Your task to perform on an android device: Open battery settings Image 0: 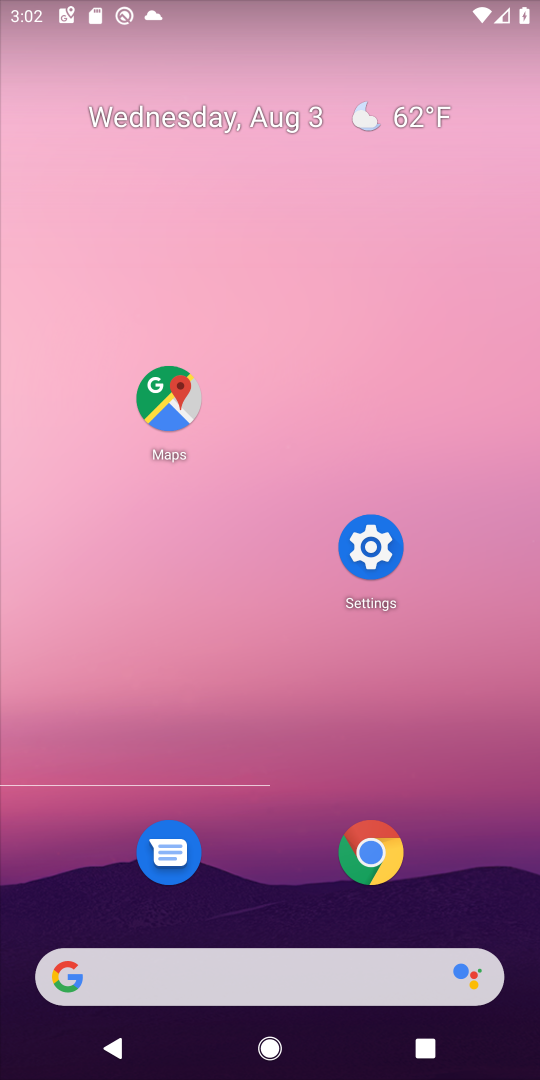
Step 0: click (368, 546)
Your task to perform on an android device: Open battery settings Image 1: 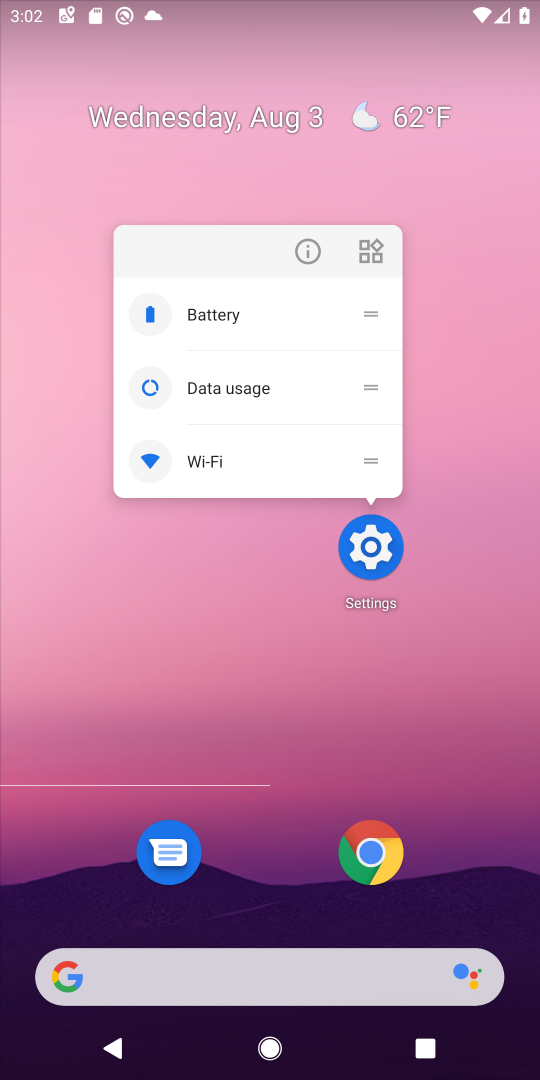
Step 1: click (368, 547)
Your task to perform on an android device: Open battery settings Image 2: 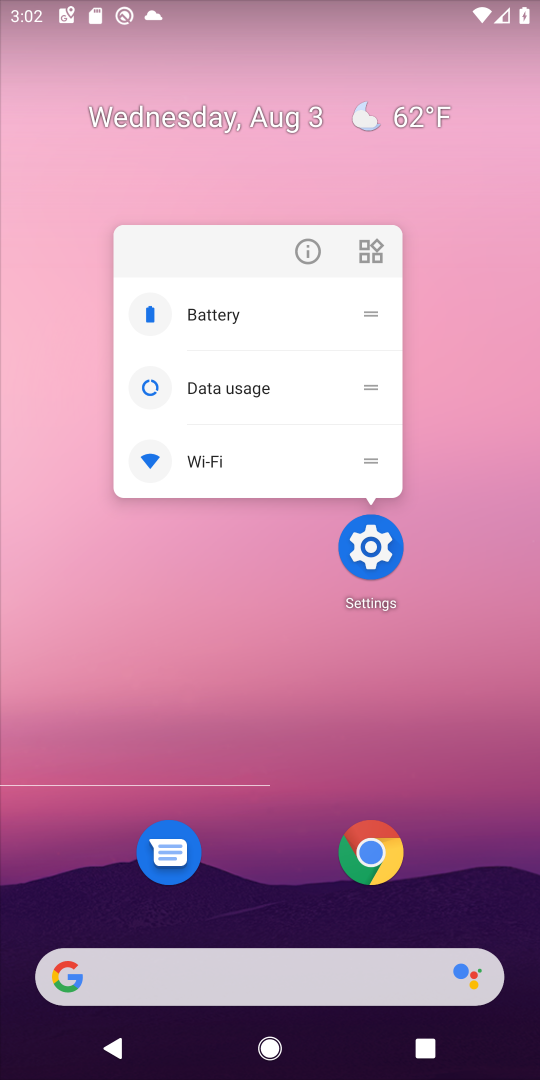
Step 2: click (368, 548)
Your task to perform on an android device: Open battery settings Image 3: 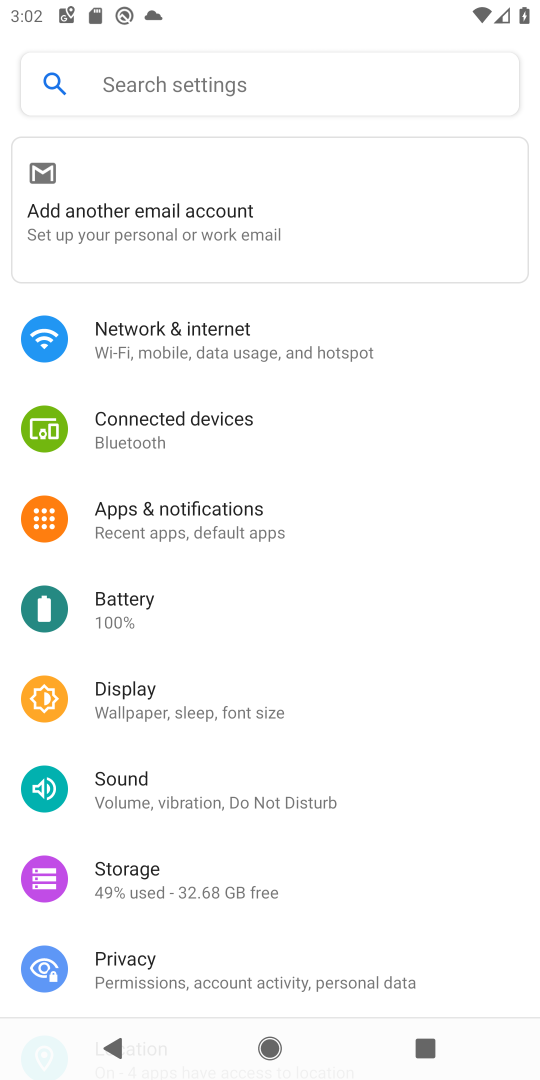
Step 3: click (120, 616)
Your task to perform on an android device: Open battery settings Image 4: 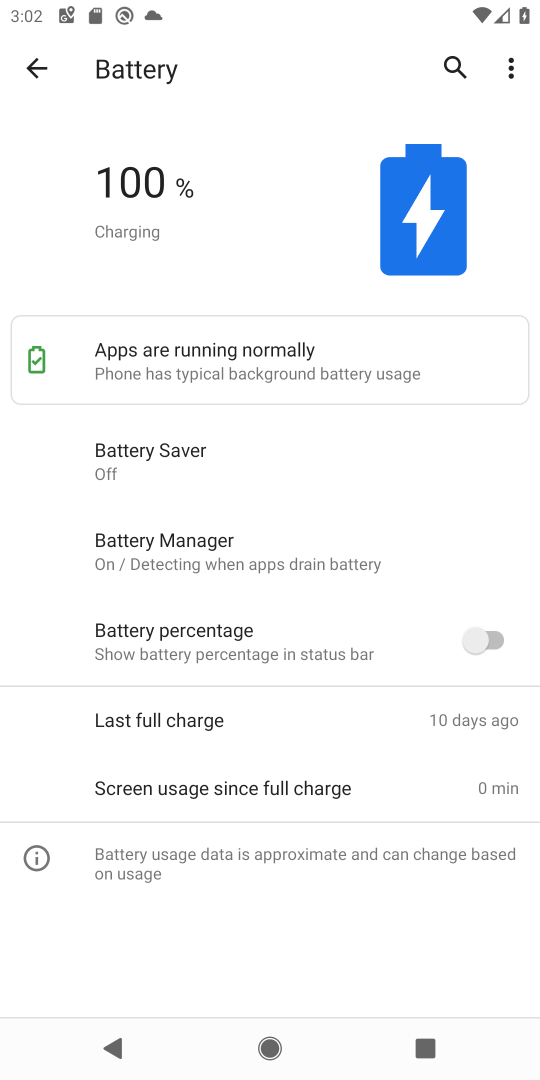
Step 4: task complete